Your task to perform on an android device: check the backup settings in the google photos Image 0: 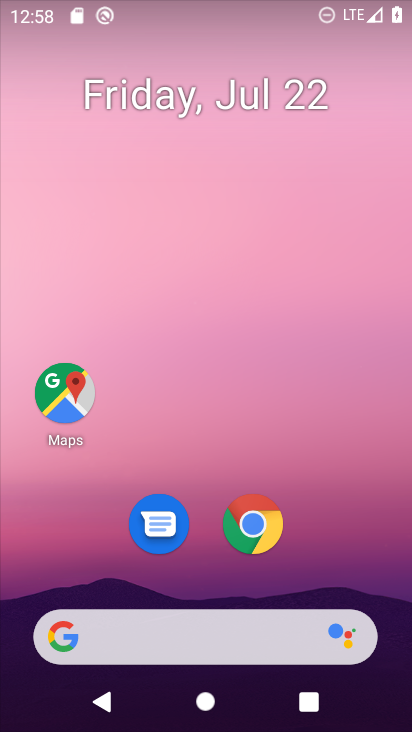
Step 0: drag from (347, 536) to (332, 33)
Your task to perform on an android device: check the backup settings in the google photos Image 1: 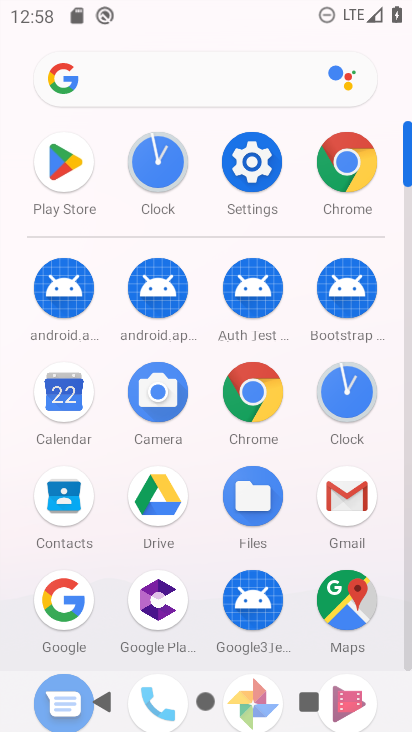
Step 1: drag from (303, 626) to (299, 391)
Your task to perform on an android device: check the backup settings in the google photos Image 2: 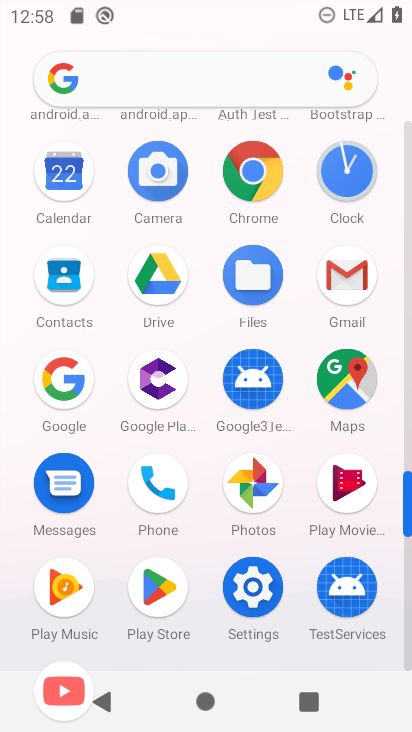
Step 2: click (259, 480)
Your task to perform on an android device: check the backup settings in the google photos Image 3: 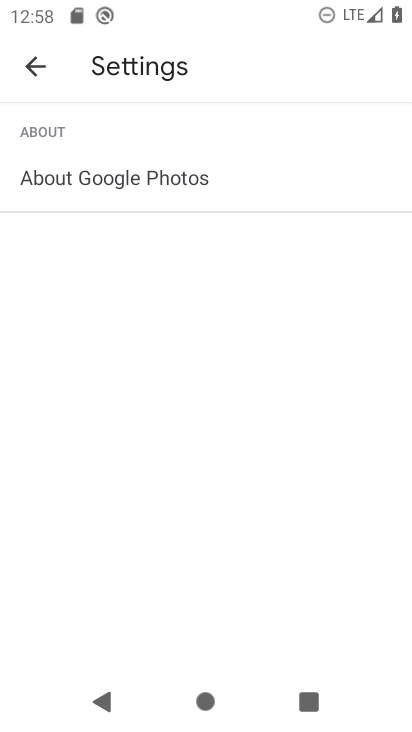
Step 3: click (33, 54)
Your task to perform on an android device: check the backup settings in the google photos Image 4: 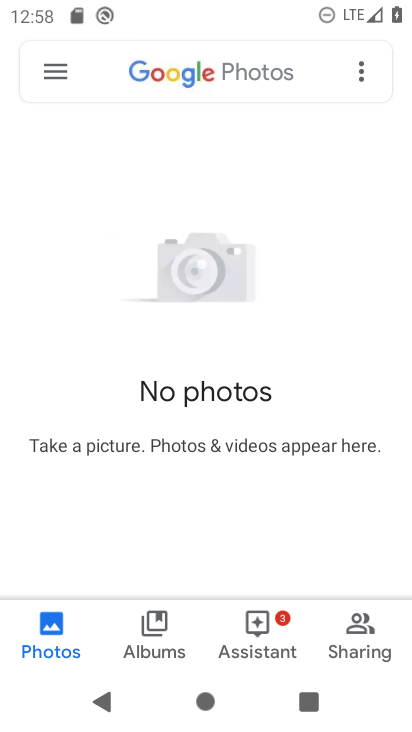
Step 4: click (58, 72)
Your task to perform on an android device: check the backup settings in the google photos Image 5: 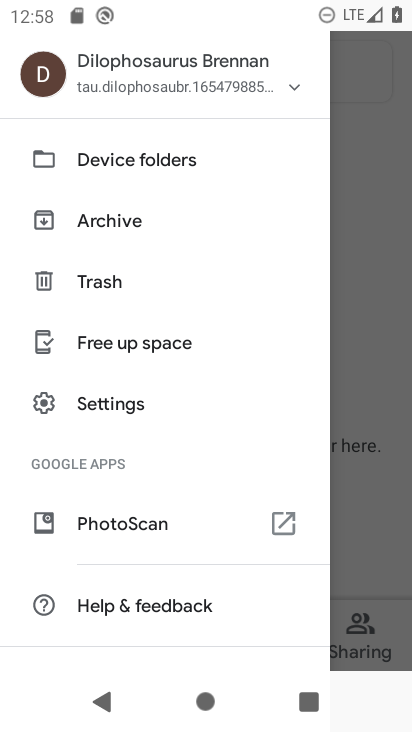
Step 5: click (102, 398)
Your task to perform on an android device: check the backup settings in the google photos Image 6: 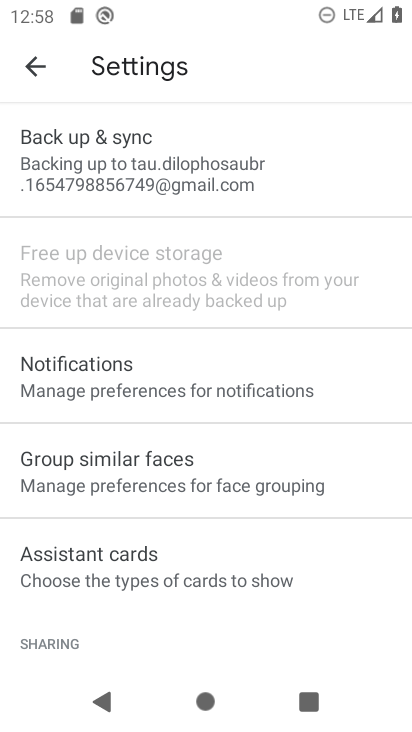
Step 6: click (197, 170)
Your task to perform on an android device: check the backup settings in the google photos Image 7: 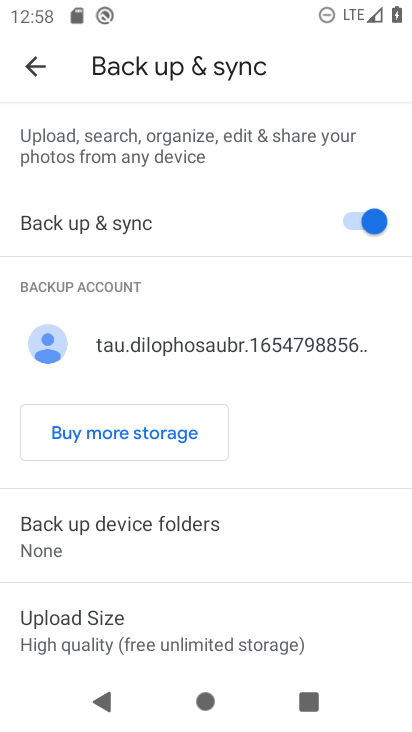
Step 7: task complete